Your task to perform on an android device: change the upload size in google photos Image 0: 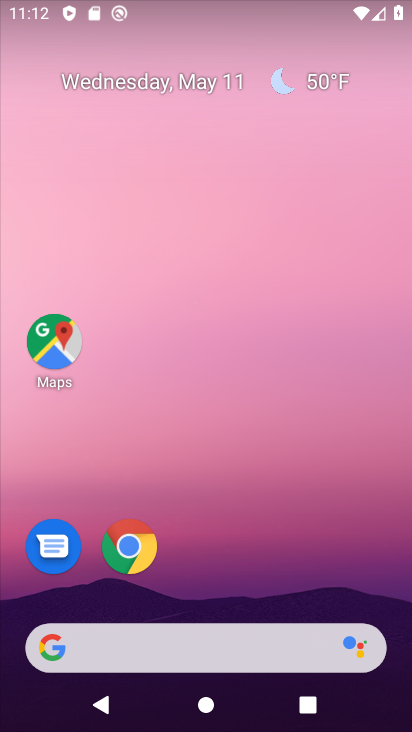
Step 0: drag from (190, 639) to (184, 171)
Your task to perform on an android device: change the upload size in google photos Image 1: 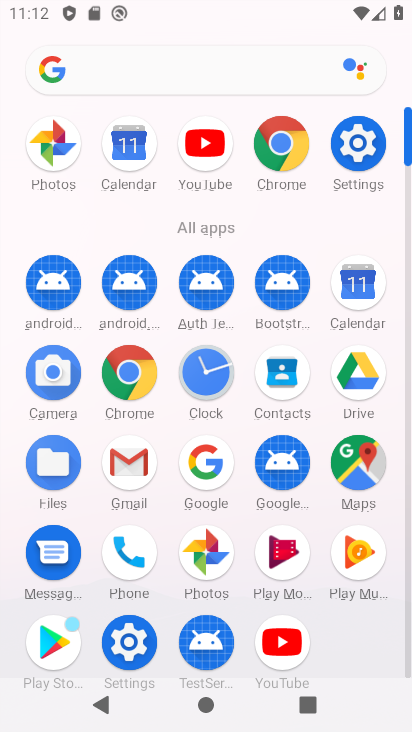
Step 1: click (213, 562)
Your task to perform on an android device: change the upload size in google photos Image 2: 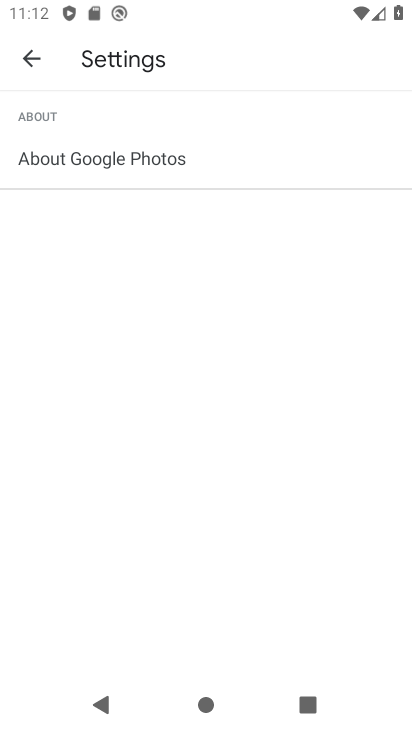
Step 2: click (32, 69)
Your task to perform on an android device: change the upload size in google photos Image 3: 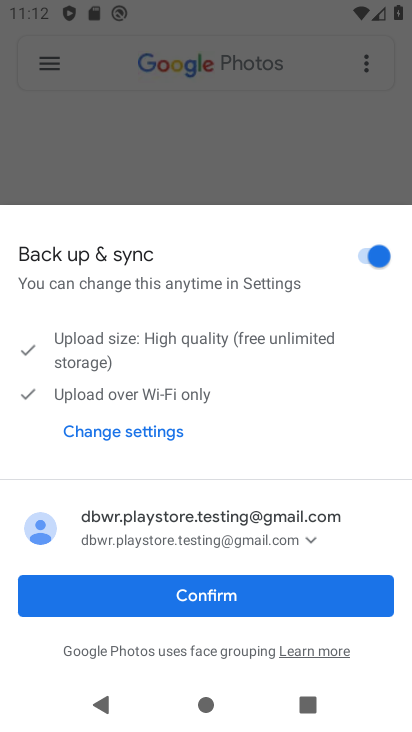
Step 3: click (278, 596)
Your task to perform on an android device: change the upload size in google photos Image 4: 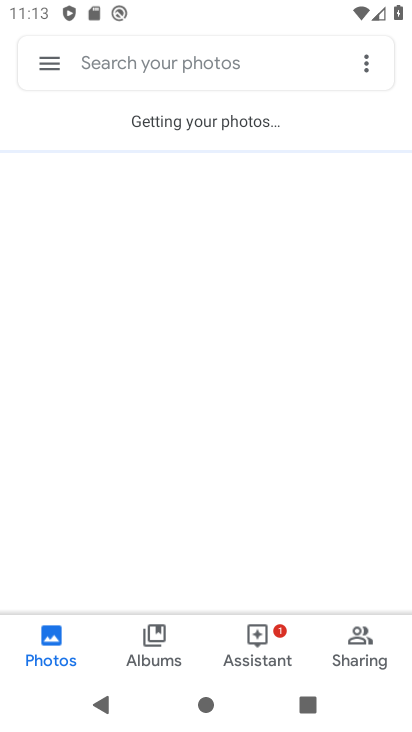
Step 4: click (46, 60)
Your task to perform on an android device: change the upload size in google photos Image 5: 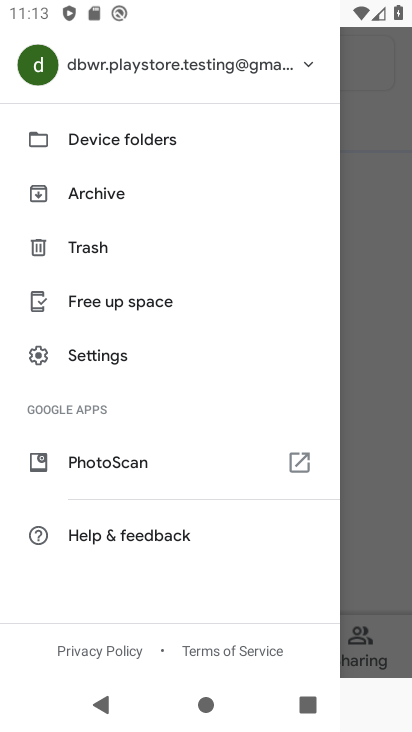
Step 5: drag from (124, 501) to (86, 145)
Your task to perform on an android device: change the upload size in google photos Image 6: 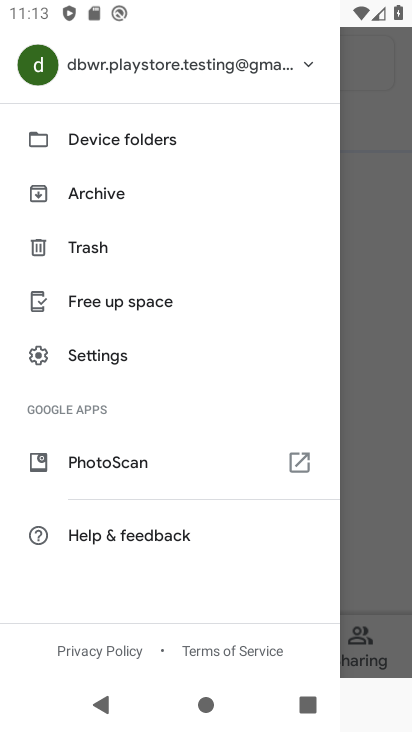
Step 6: click (96, 354)
Your task to perform on an android device: change the upload size in google photos Image 7: 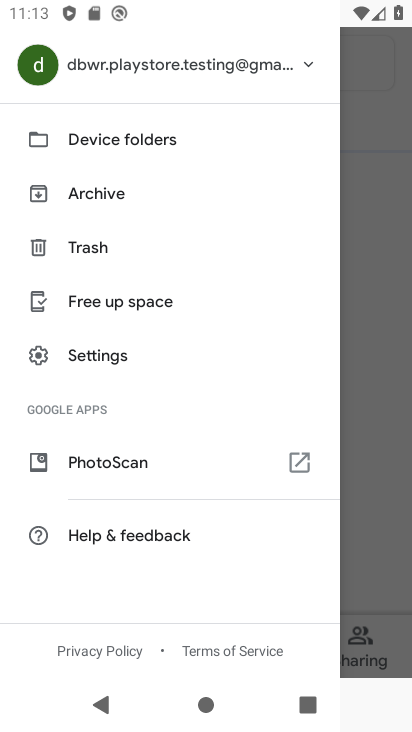
Step 7: click (109, 357)
Your task to perform on an android device: change the upload size in google photos Image 8: 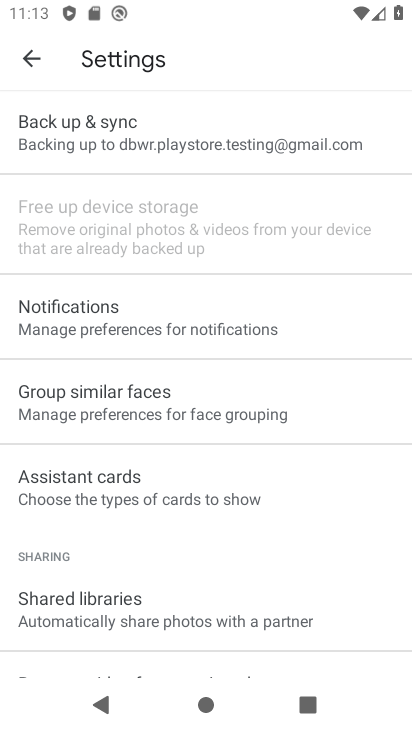
Step 8: click (146, 122)
Your task to perform on an android device: change the upload size in google photos Image 9: 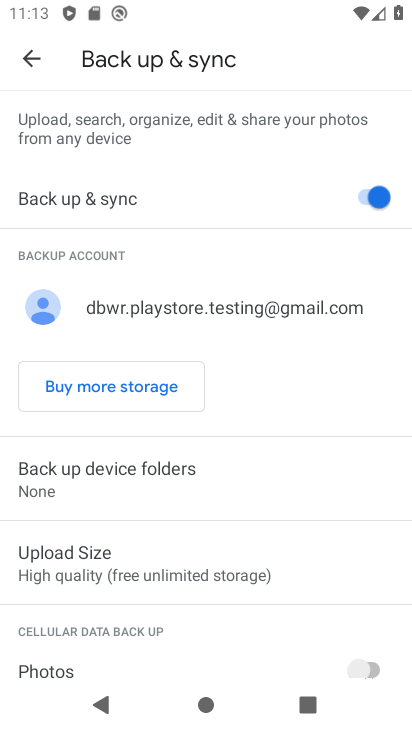
Step 9: click (171, 565)
Your task to perform on an android device: change the upload size in google photos Image 10: 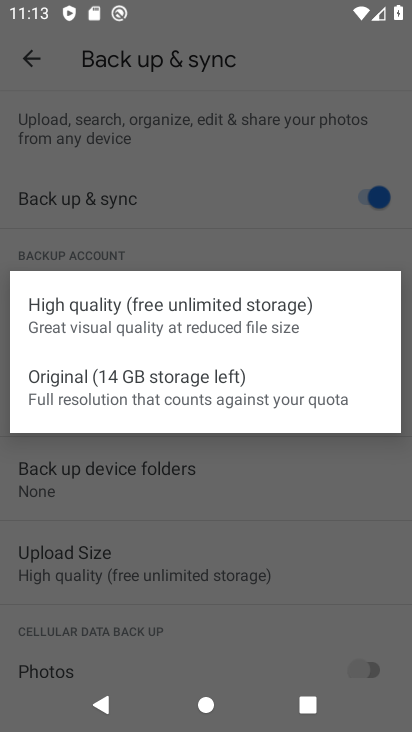
Step 10: click (176, 375)
Your task to perform on an android device: change the upload size in google photos Image 11: 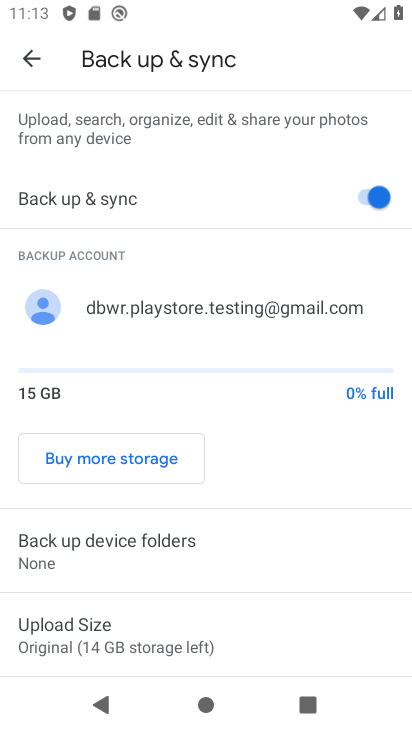
Step 11: task complete